Your task to perform on an android device: Set the phone to "Do not disturb". Image 0: 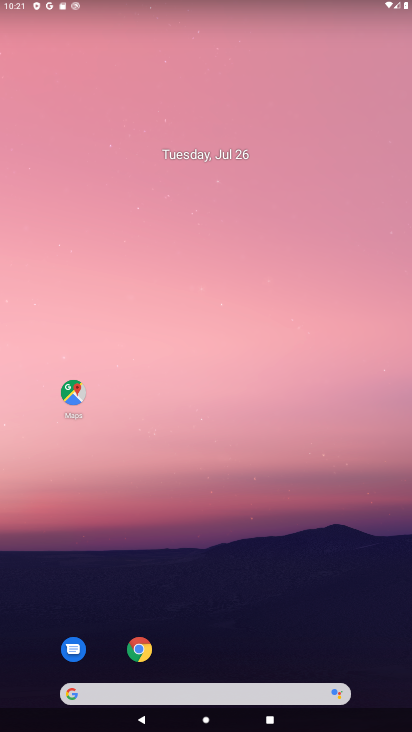
Step 0: drag from (209, 679) to (251, 10)
Your task to perform on an android device: Set the phone to "Do not disturb". Image 1: 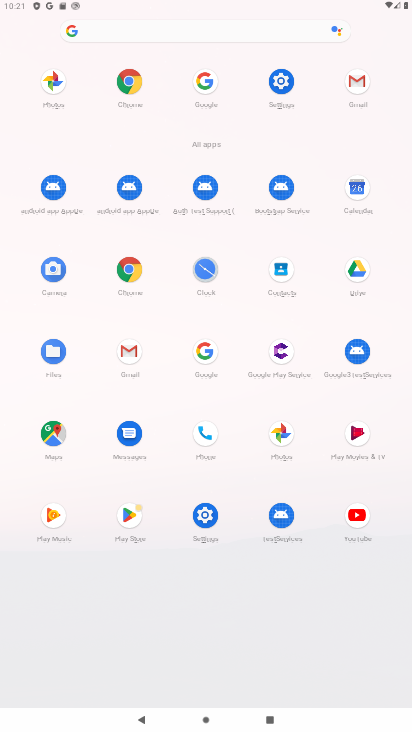
Step 1: click (287, 88)
Your task to perform on an android device: Set the phone to "Do not disturb". Image 2: 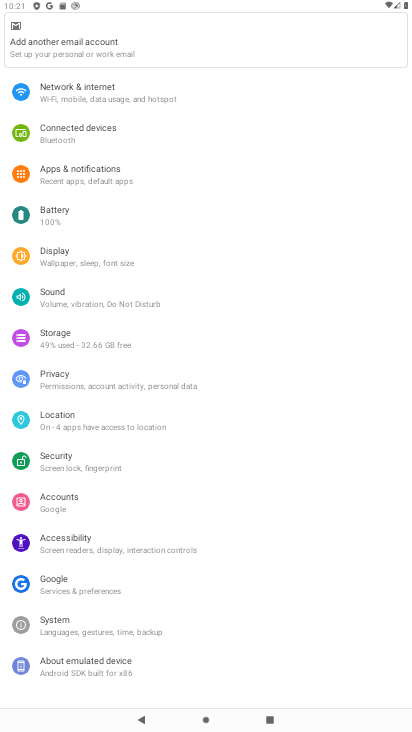
Step 2: click (109, 296)
Your task to perform on an android device: Set the phone to "Do not disturb". Image 3: 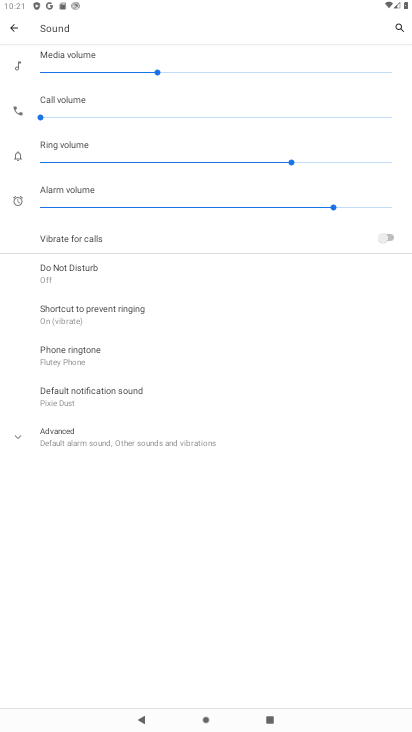
Step 3: click (100, 434)
Your task to perform on an android device: Set the phone to "Do not disturb". Image 4: 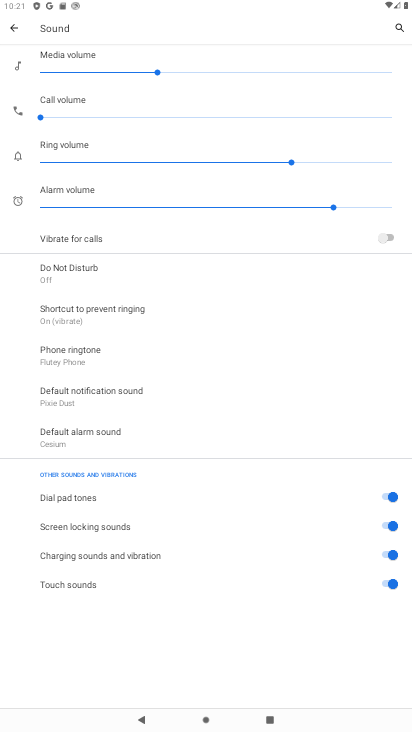
Step 4: click (54, 267)
Your task to perform on an android device: Set the phone to "Do not disturb". Image 5: 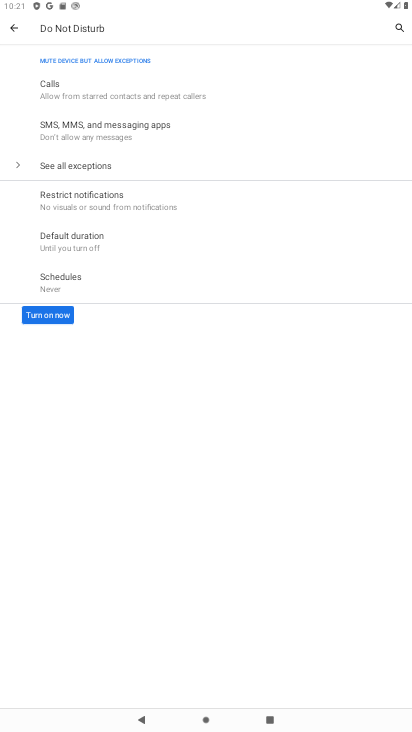
Step 5: click (50, 317)
Your task to perform on an android device: Set the phone to "Do not disturb". Image 6: 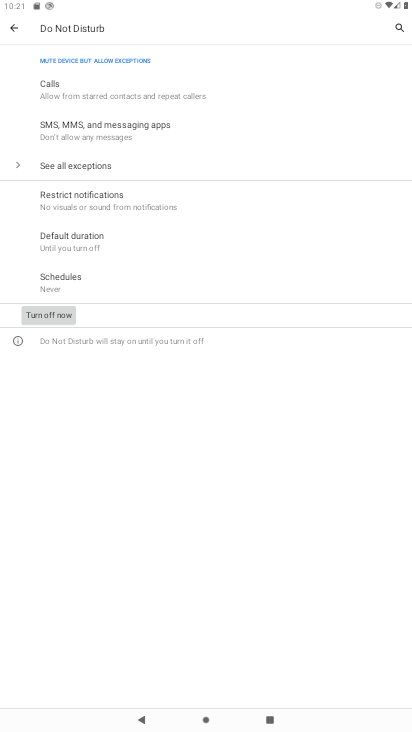
Step 6: task complete